Your task to perform on an android device: clear all cookies in the chrome app Image 0: 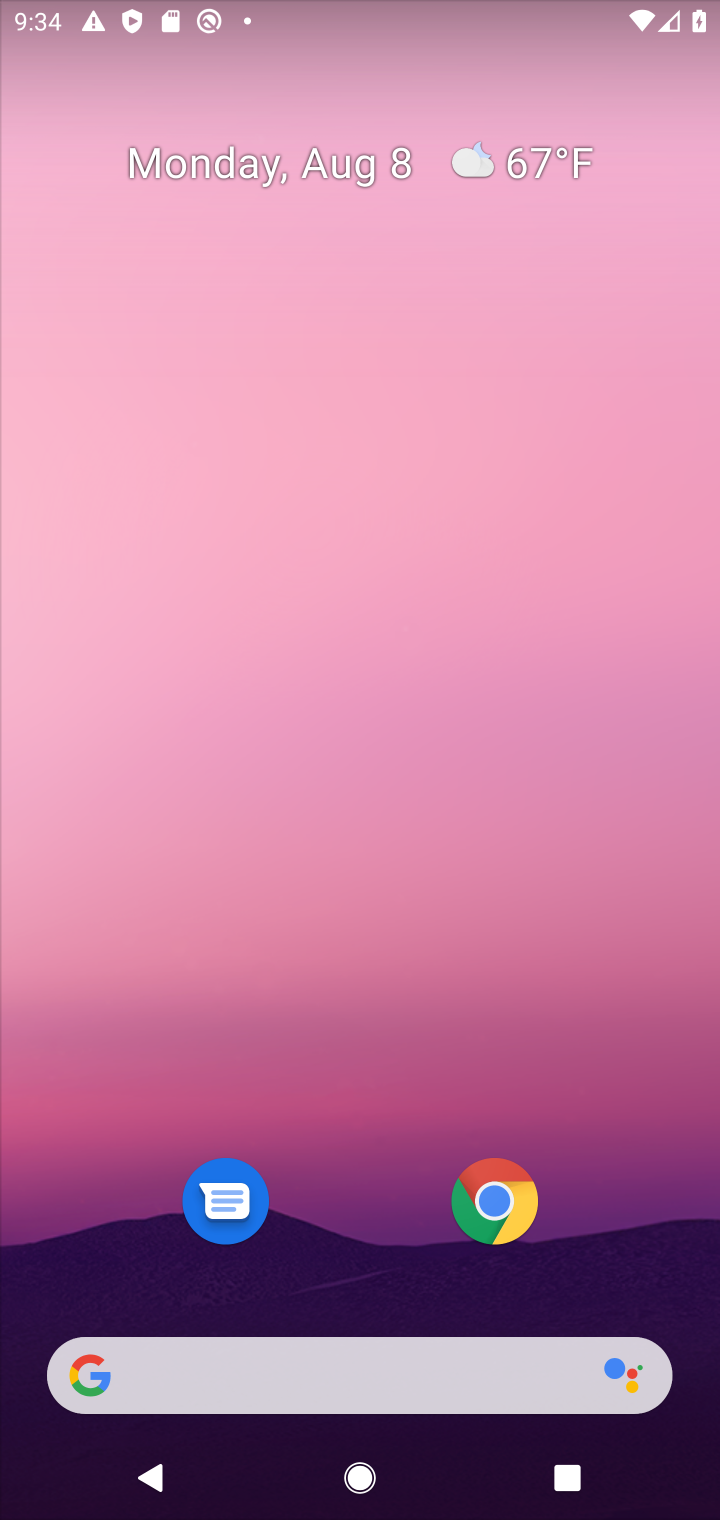
Step 0: press home button
Your task to perform on an android device: clear all cookies in the chrome app Image 1: 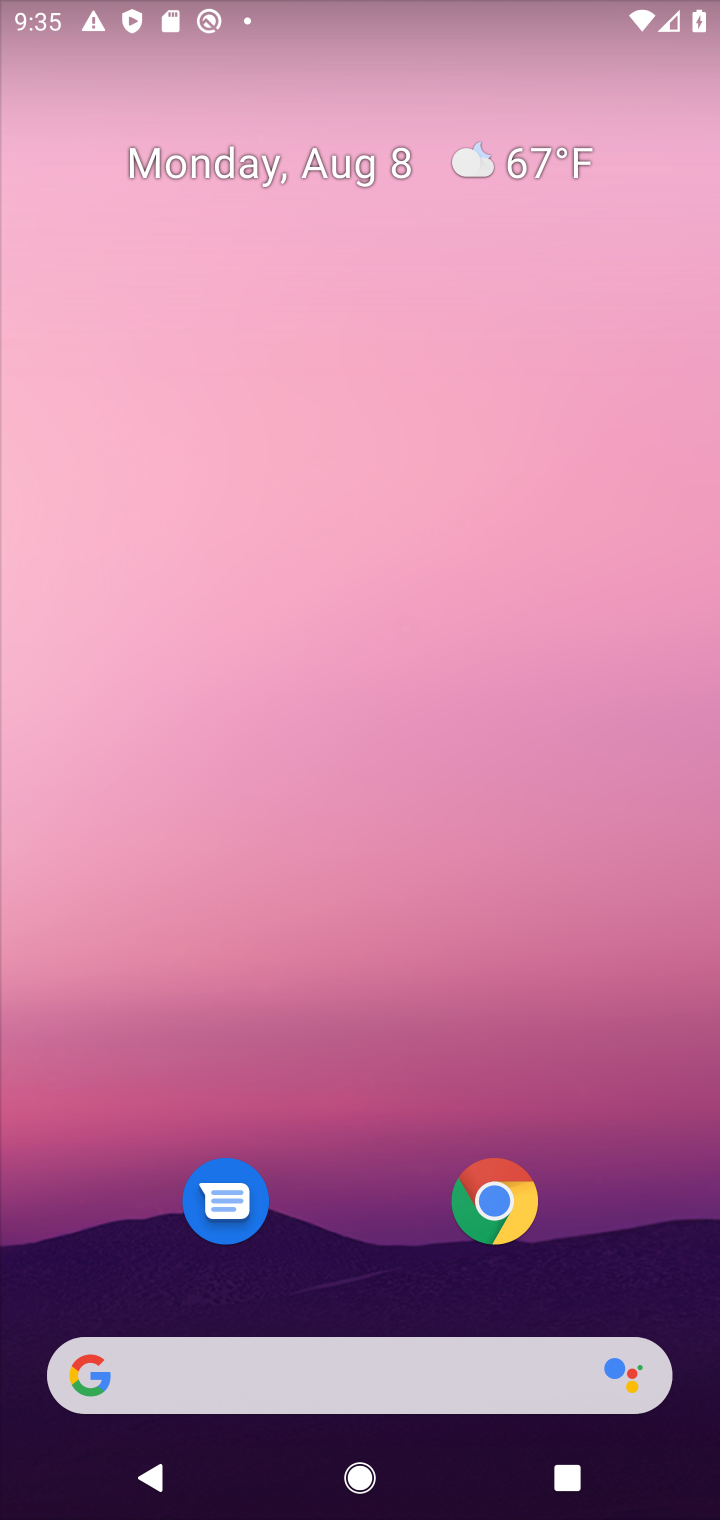
Step 1: drag from (625, 1197) to (624, 258)
Your task to perform on an android device: clear all cookies in the chrome app Image 2: 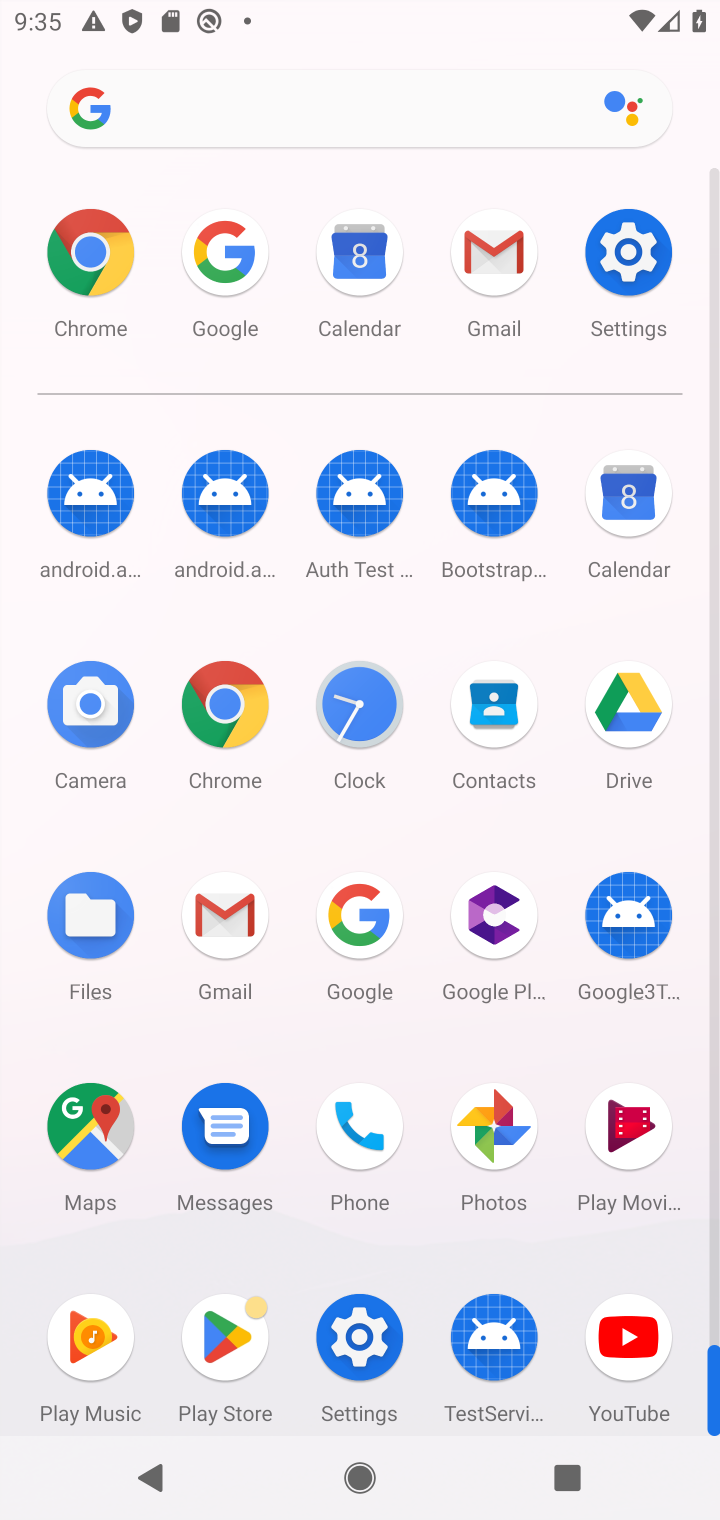
Step 2: click (218, 706)
Your task to perform on an android device: clear all cookies in the chrome app Image 3: 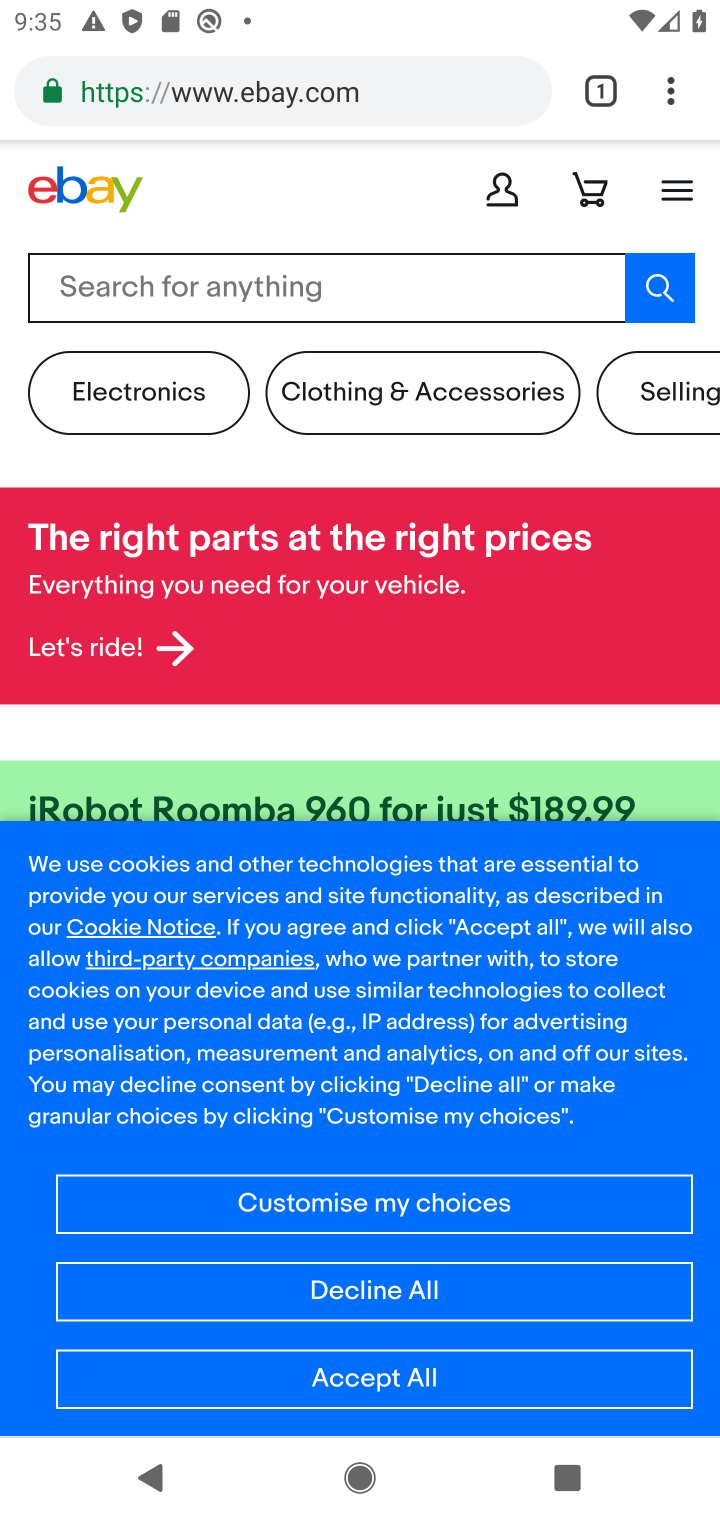
Step 3: click (666, 102)
Your task to perform on an android device: clear all cookies in the chrome app Image 4: 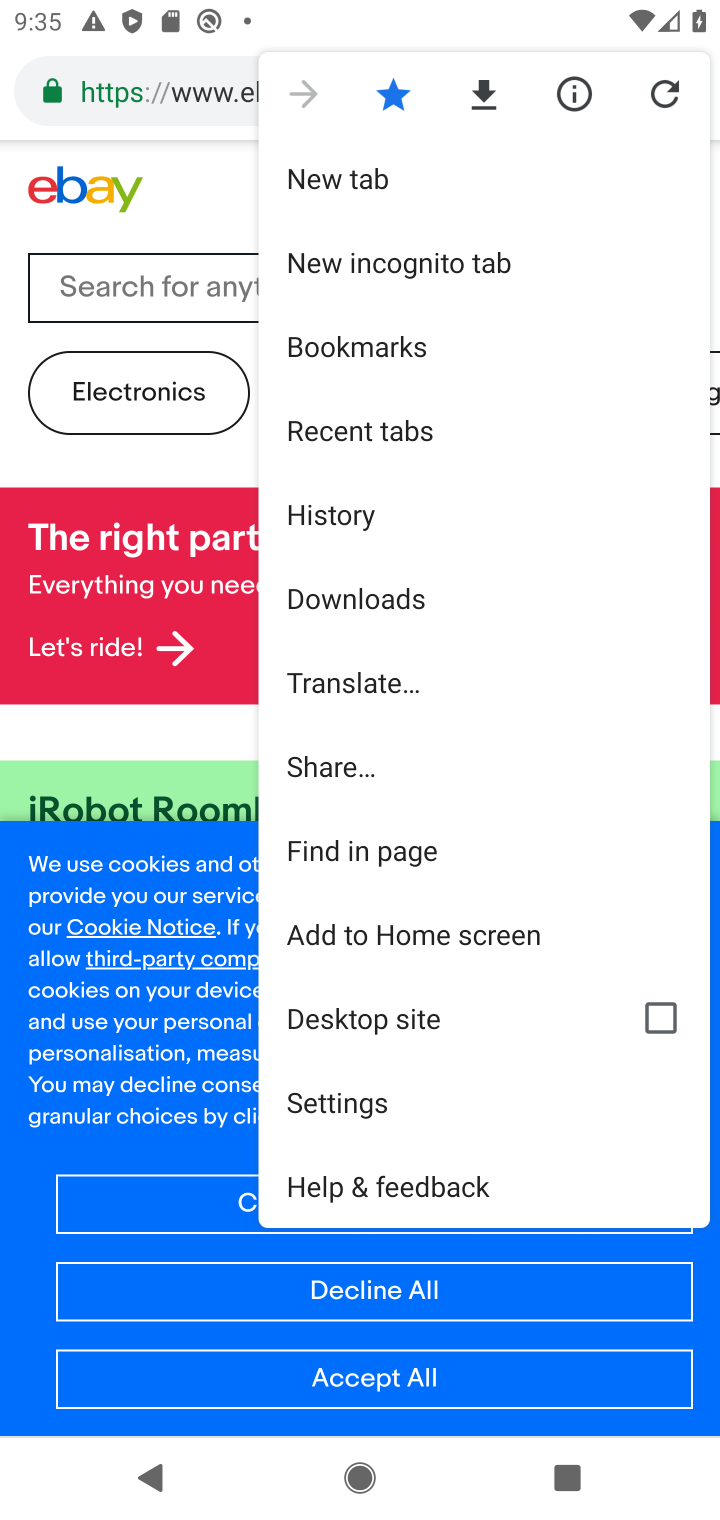
Step 4: click (355, 1110)
Your task to perform on an android device: clear all cookies in the chrome app Image 5: 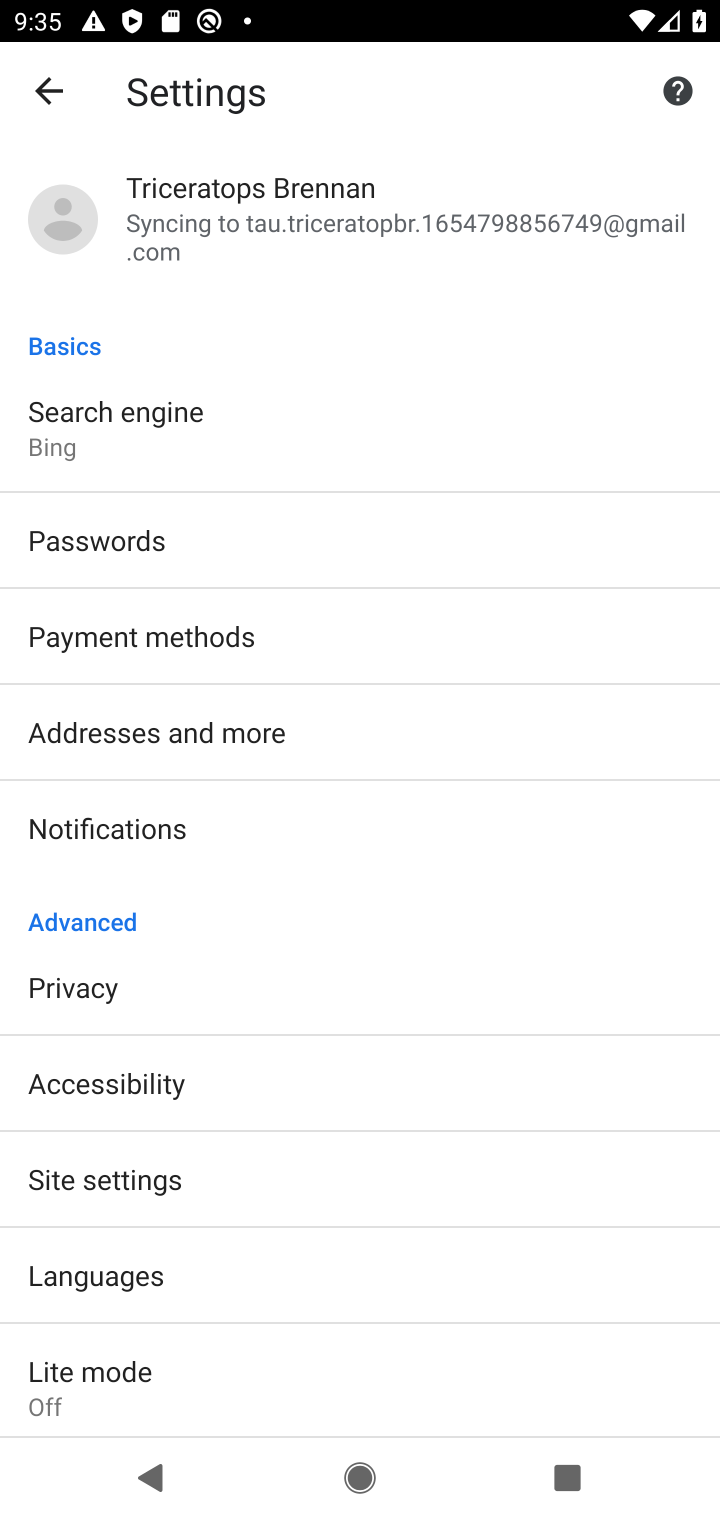
Step 5: click (268, 987)
Your task to perform on an android device: clear all cookies in the chrome app Image 6: 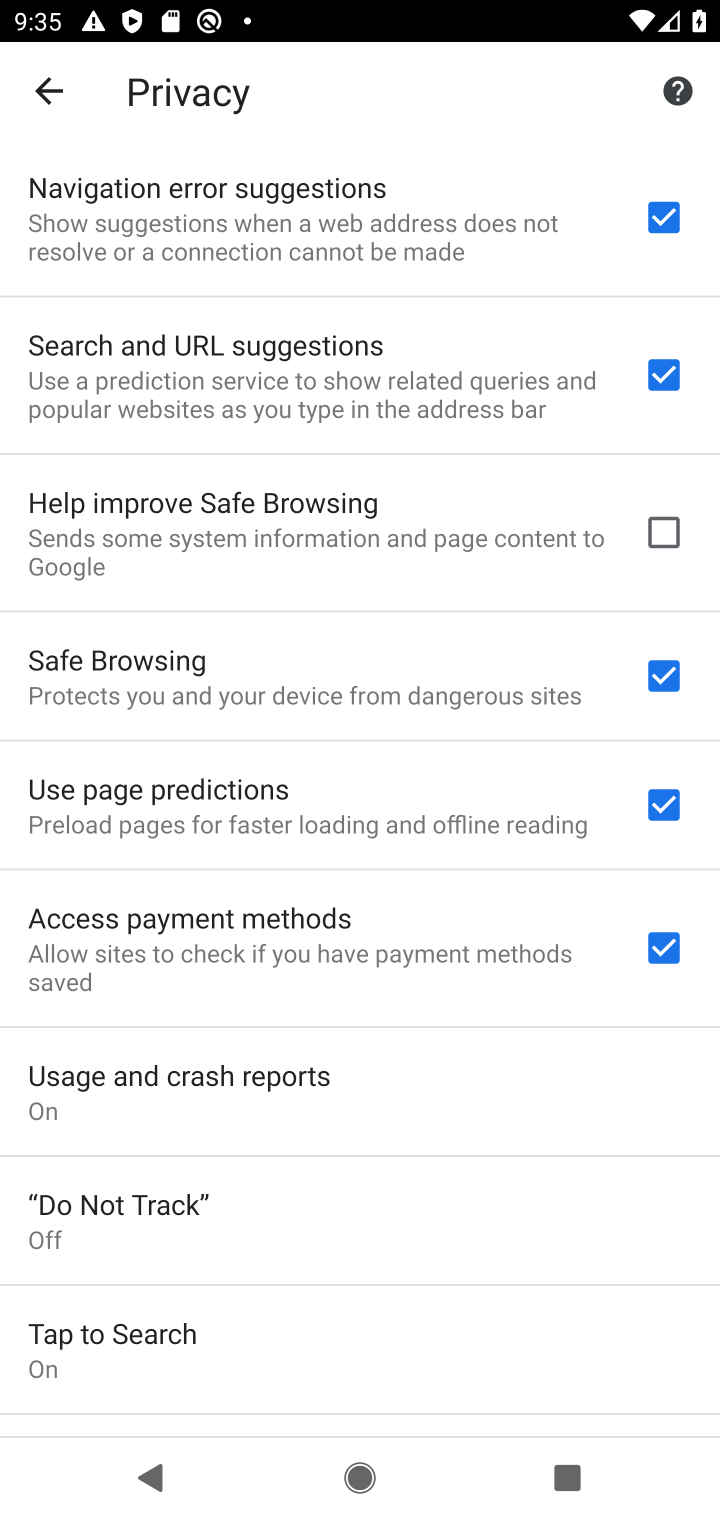
Step 6: drag from (557, 1237) to (568, 908)
Your task to perform on an android device: clear all cookies in the chrome app Image 7: 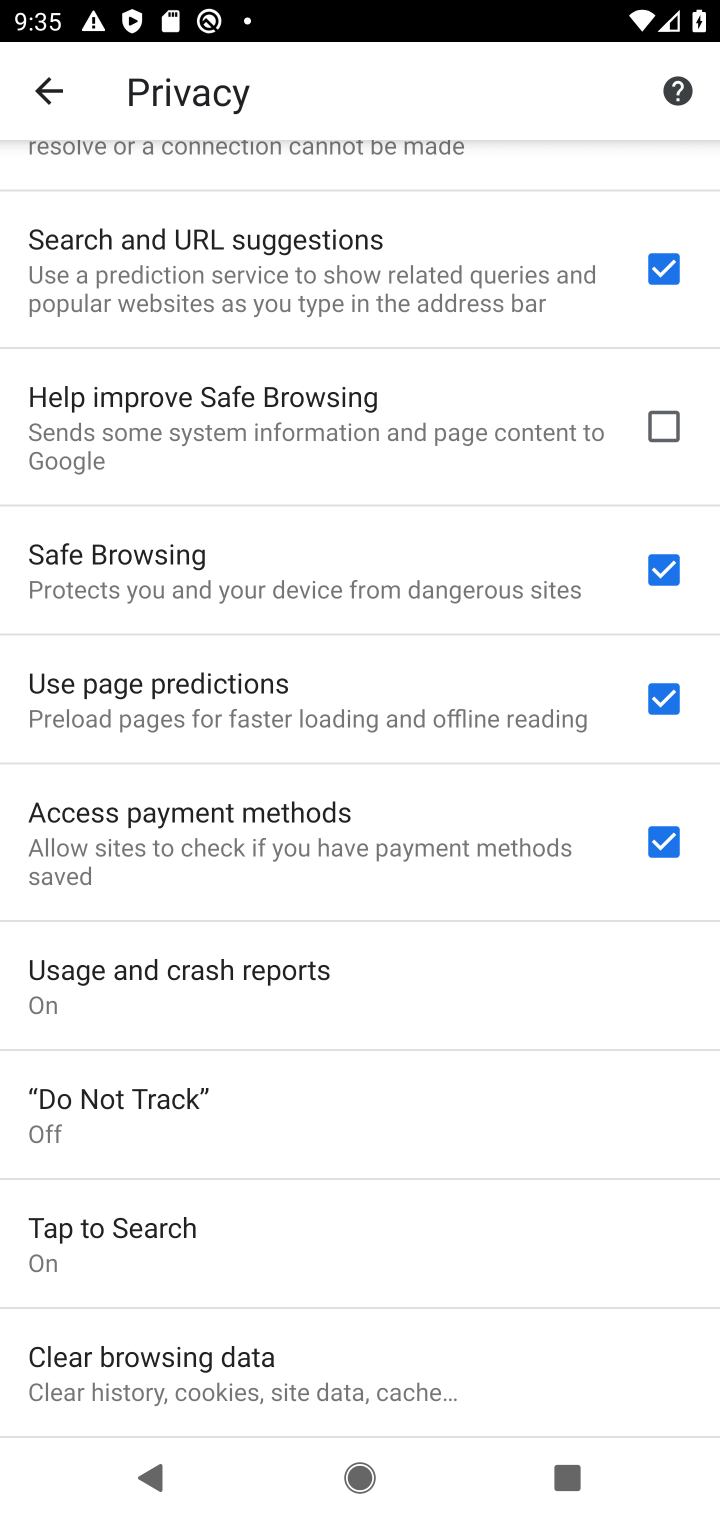
Step 7: click (432, 1363)
Your task to perform on an android device: clear all cookies in the chrome app Image 8: 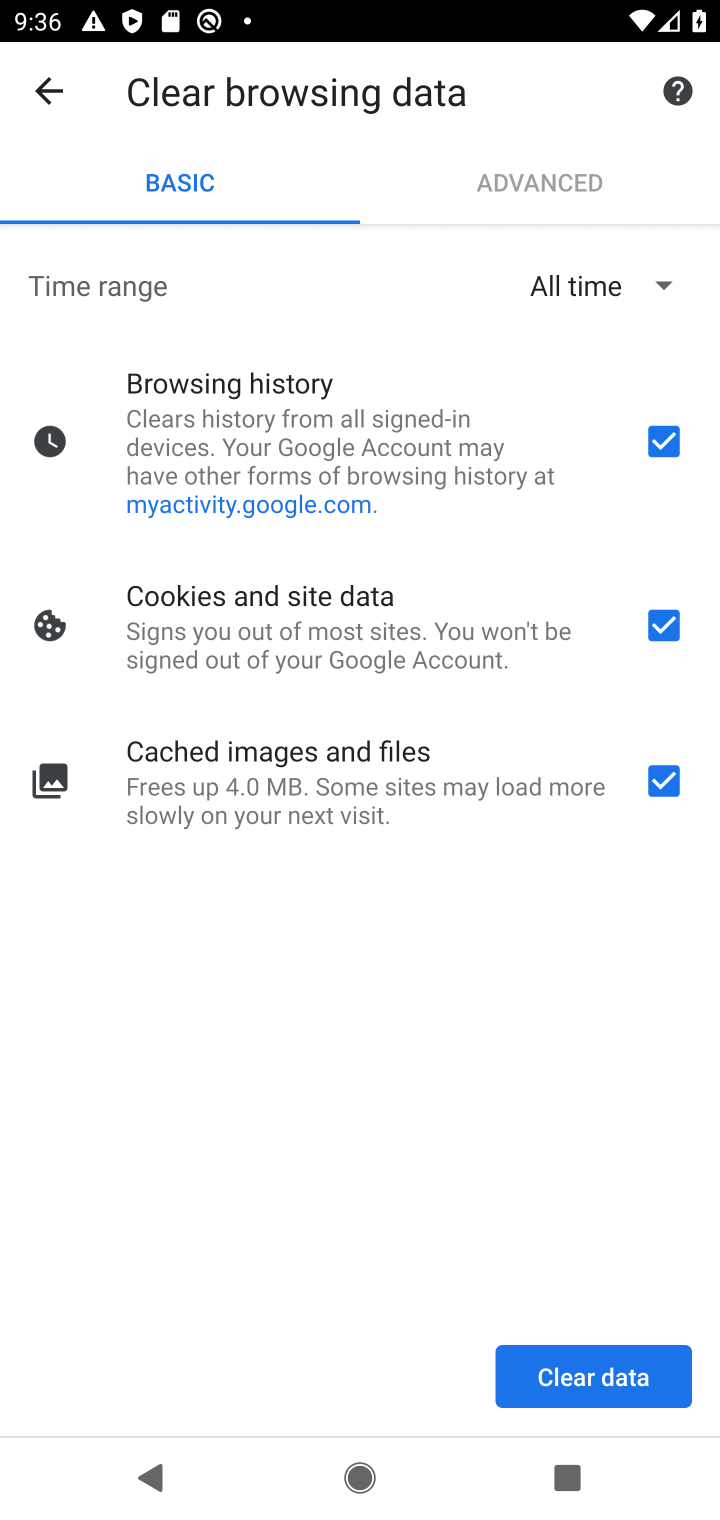
Step 8: click (562, 1381)
Your task to perform on an android device: clear all cookies in the chrome app Image 9: 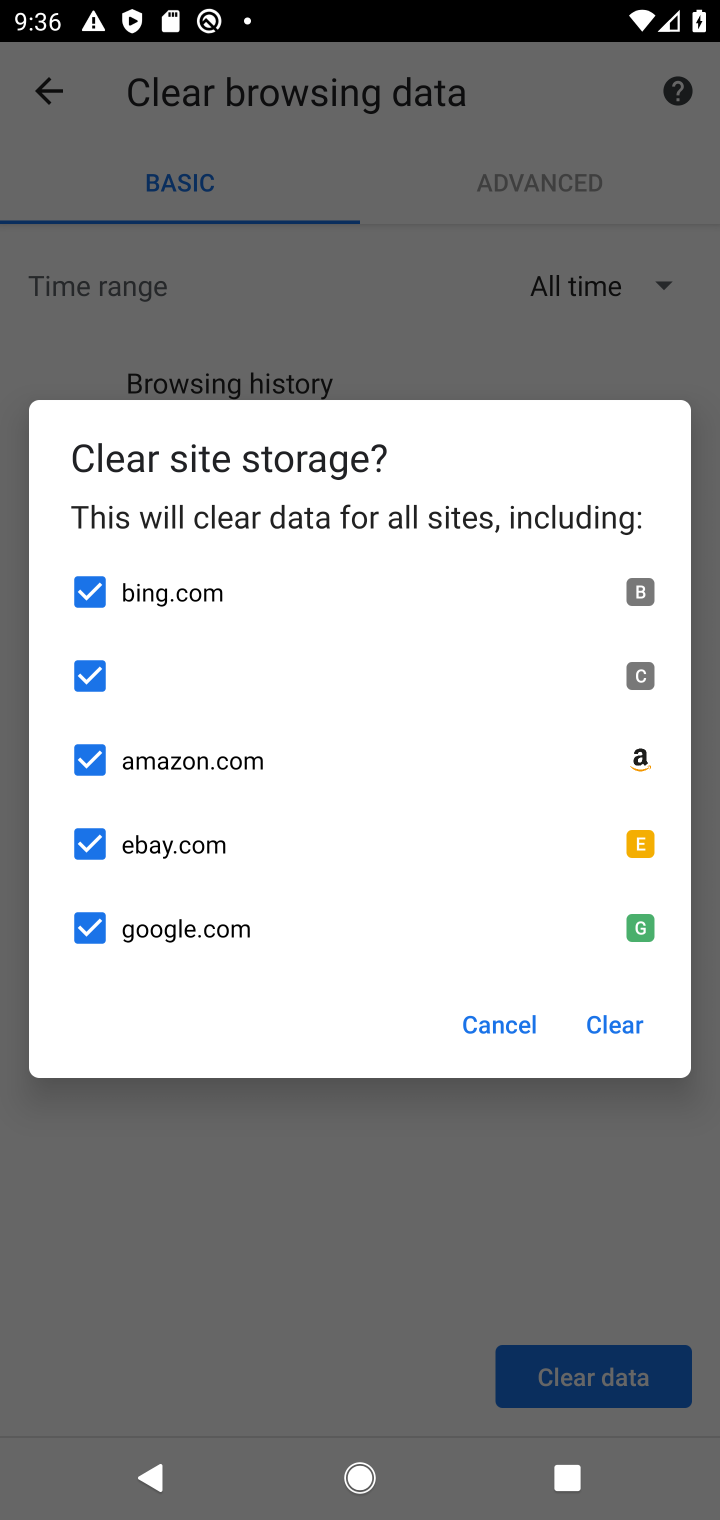
Step 9: click (620, 1022)
Your task to perform on an android device: clear all cookies in the chrome app Image 10: 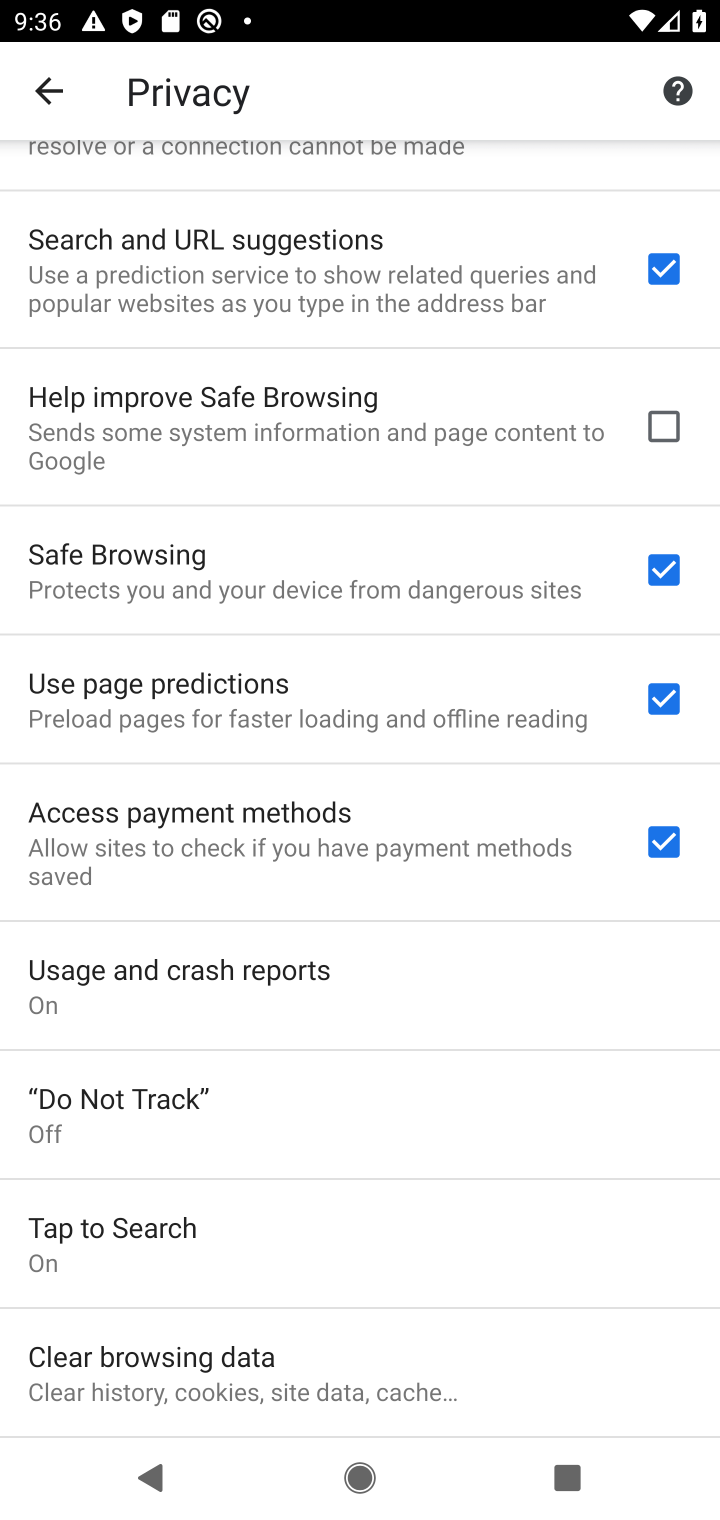
Step 10: task complete